Your task to perform on an android device: Open Youtube and go to "Your channel" Image 0: 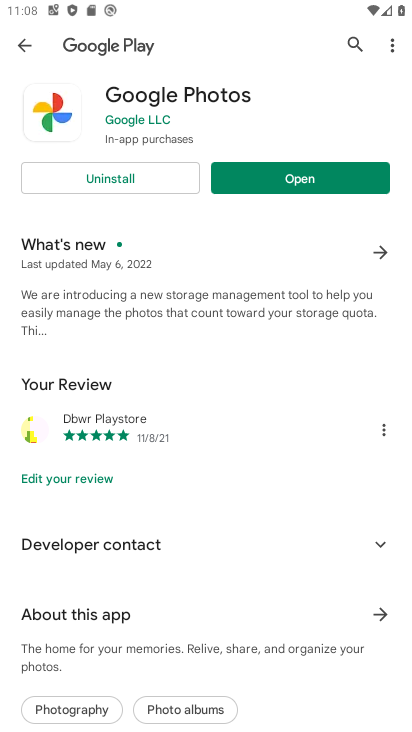
Step 0: press home button
Your task to perform on an android device: Open Youtube and go to "Your channel" Image 1: 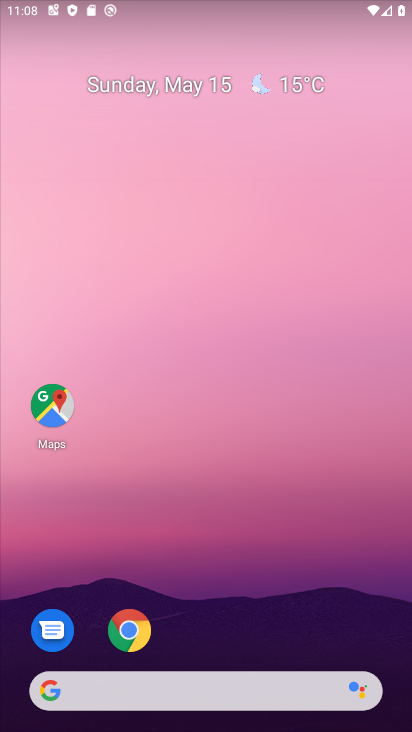
Step 1: drag from (199, 720) to (199, 206)
Your task to perform on an android device: Open Youtube and go to "Your channel" Image 2: 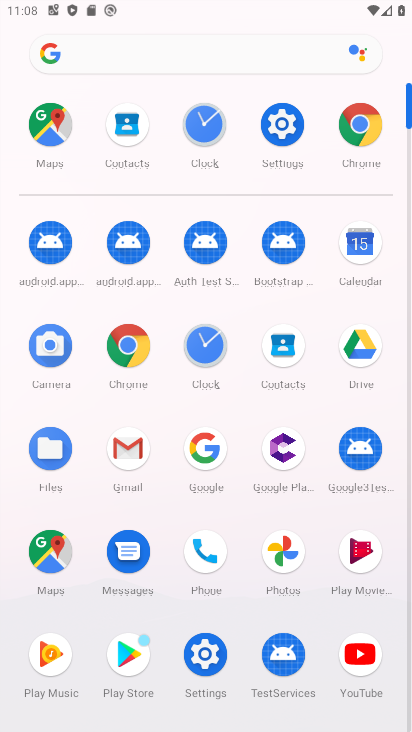
Step 2: click (355, 654)
Your task to perform on an android device: Open Youtube and go to "Your channel" Image 3: 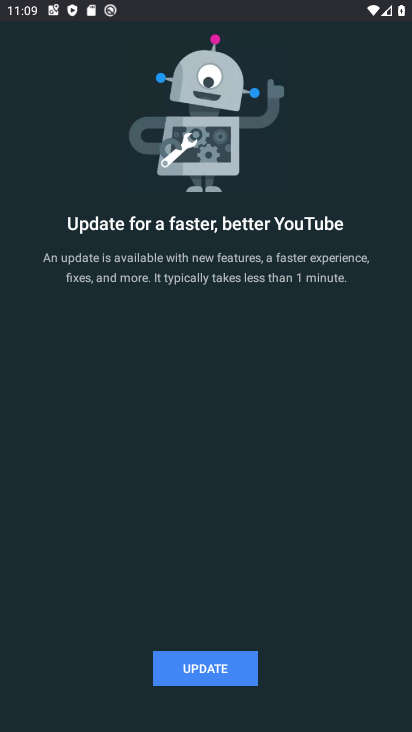
Step 3: task complete